Your task to perform on an android device: change the clock display to digital Image 0: 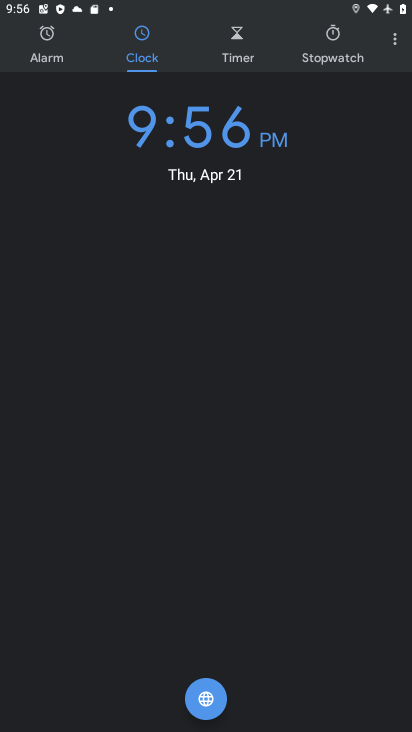
Step 0: press home button
Your task to perform on an android device: change the clock display to digital Image 1: 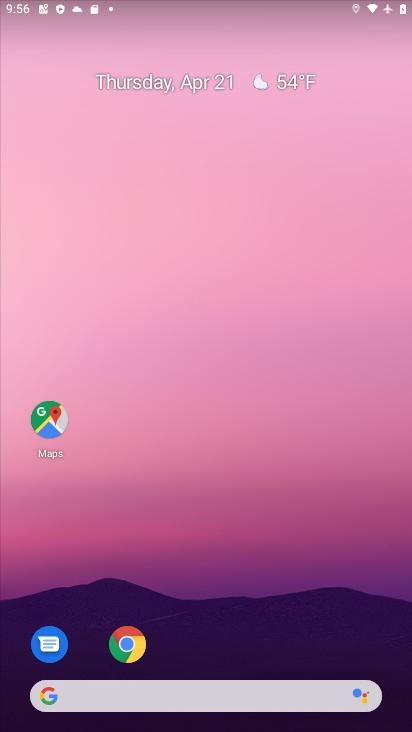
Step 1: drag from (95, 384) to (61, 59)
Your task to perform on an android device: change the clock display to digital Image 2: 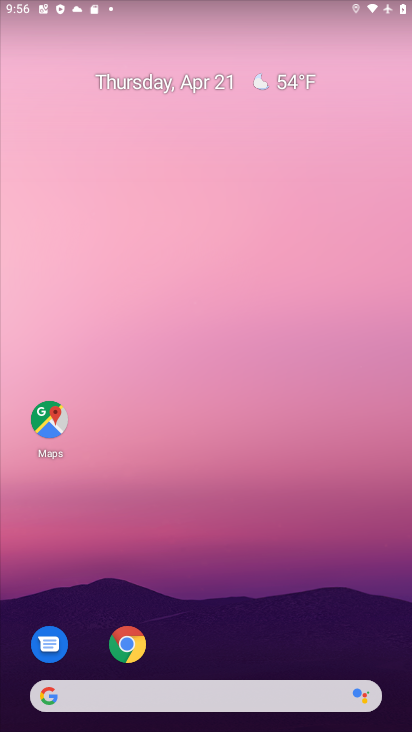
Step 2: drag from (257, 567) to (153, 76)
Your task to perform on an android device: change the clock display to digital Image 3: 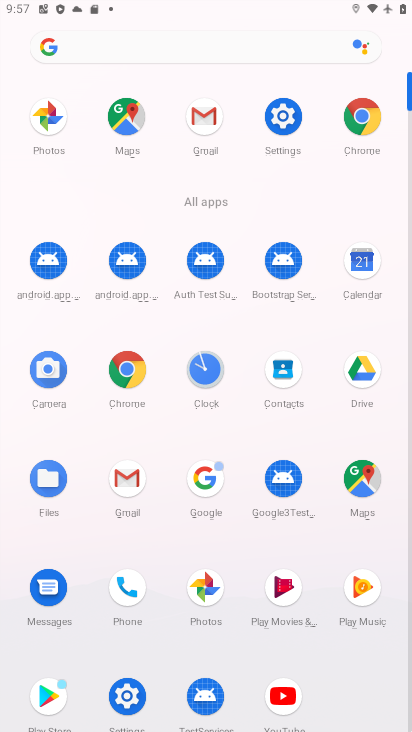
Step 3: click (209, 370)
Your task to perform on an android device: change the clock display to digital Image 4: 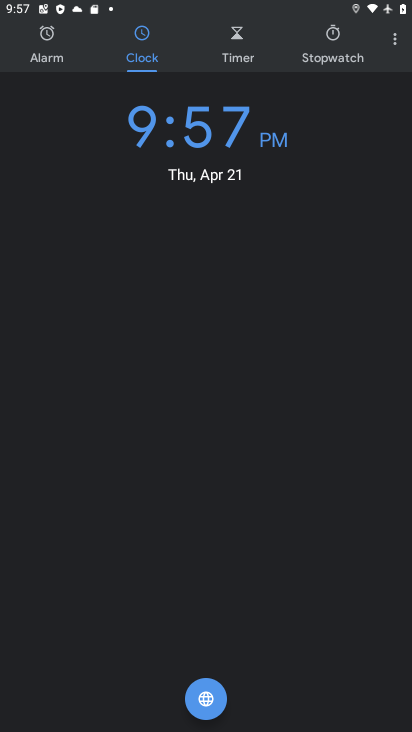
Step 4: click (399, 40)
Your task to perform on an android device: change the clock display to digital Image 5: 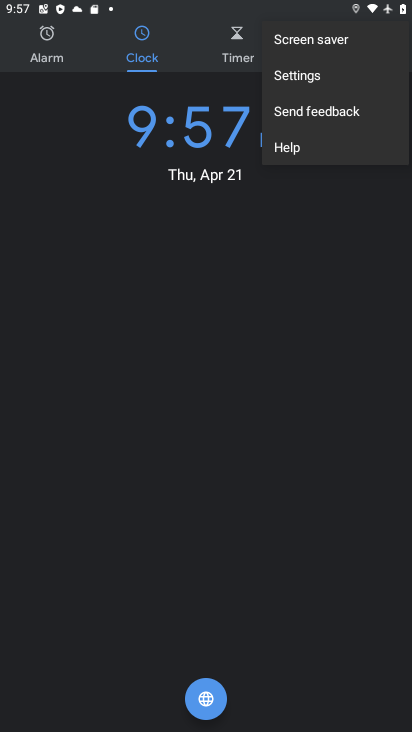
Step 5: click (333, 79)
Your task to perform on an android device: change the clock display to digital Image 6: 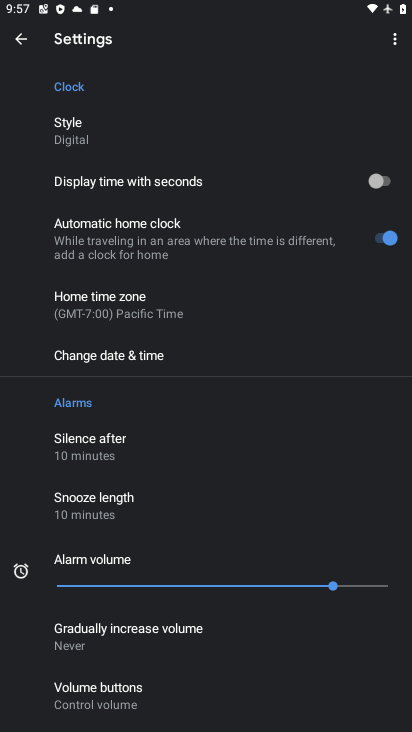
Step 6: click (73, 143)
Your task to perform on an android device: change the clock display to digital Image 7: 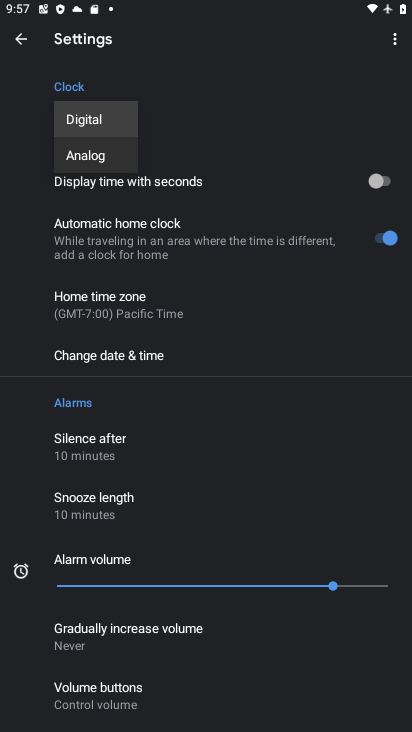
Step 7: task complete